Your task to perform on an android device: Go to Amazon Image 0: 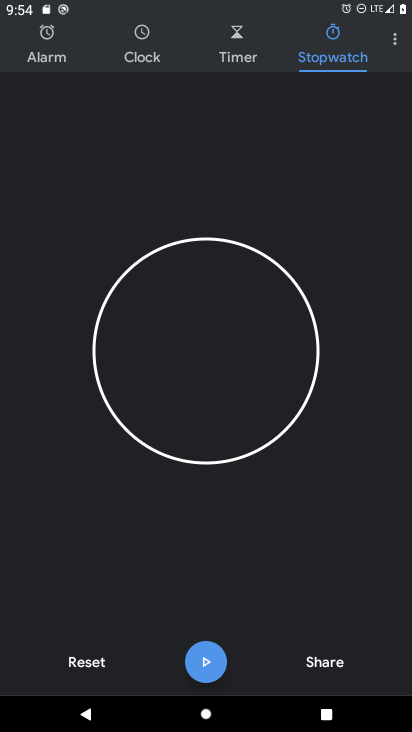
Step 0: press home button
Your task to perform on an android device: Go to Amazon Image 1: 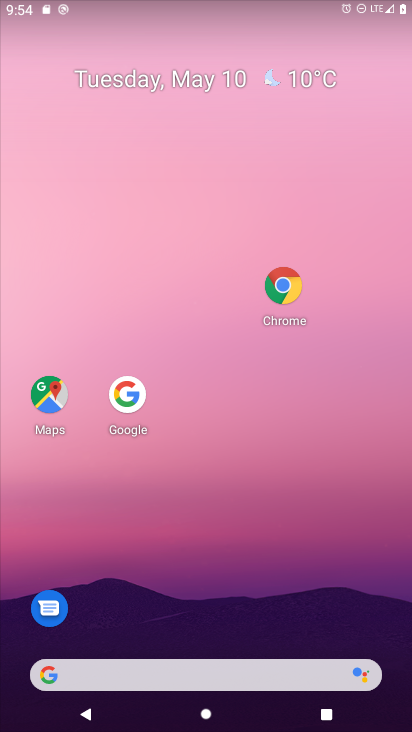
Step 1: drag from (180, 654) to (328, 19)
Your task to perform on an android device: Go to Amazon Image 2: 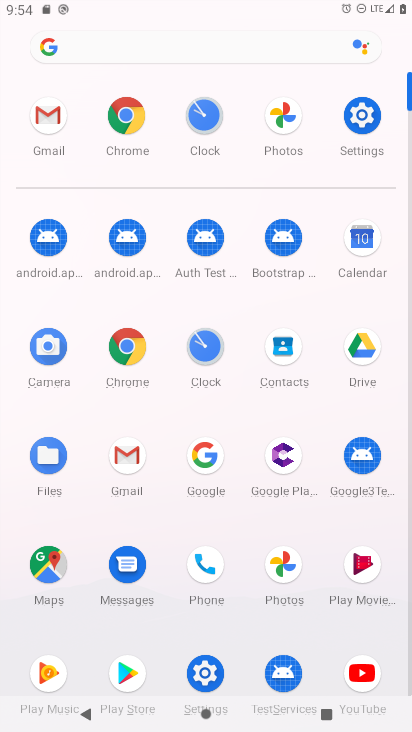
Step 2: click (130, 119)
Your task to perform on an android device: Go to Amazon Image 3: 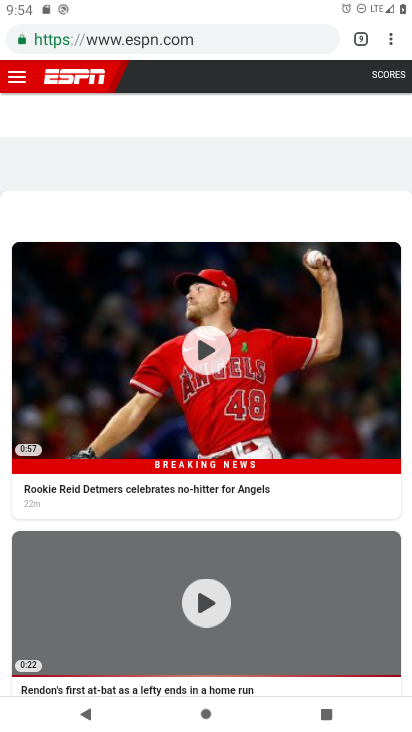
Step 3: drag from (391, 38) to (293, 85)
Your task to perform on an android device: Go to Amazon Image 4: 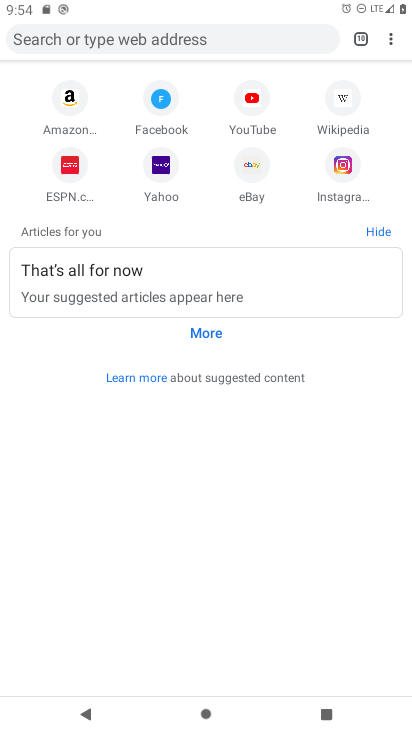
Step 4: click (71, 97)
Your task to perform on an android device: Go to Amazon Image 5: 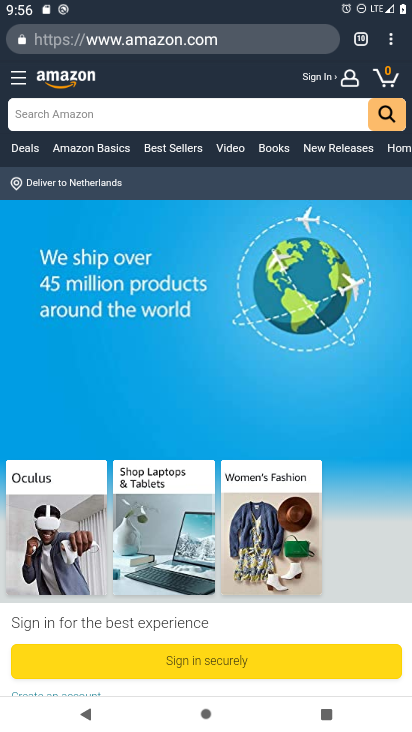
Step 5: task complete